Your task to perform on an android device: uninstall "Yahoo Mail" Image 0: 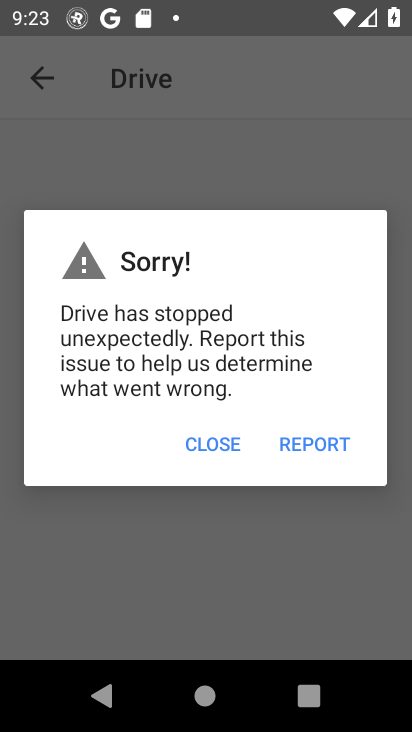
Step 0: click (220, 440)
Your task to perform on an android device: uninstall "Yahoo Mail" Image 1: 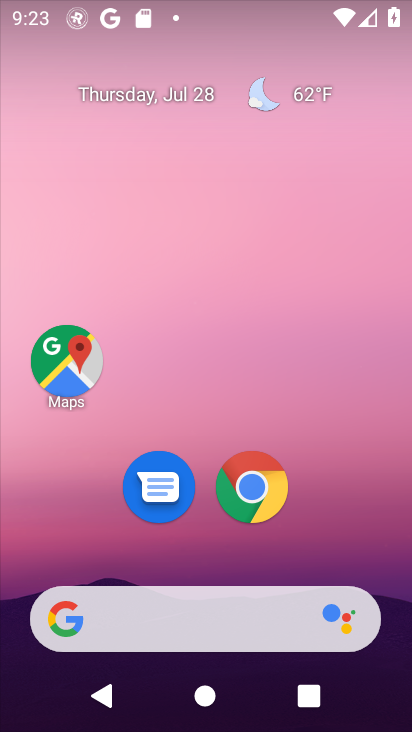
Step 1: drag from (232, 594) to (212, 203)
Your task to perform on an android device: uninstall "Yahoo Mail" Image 2: 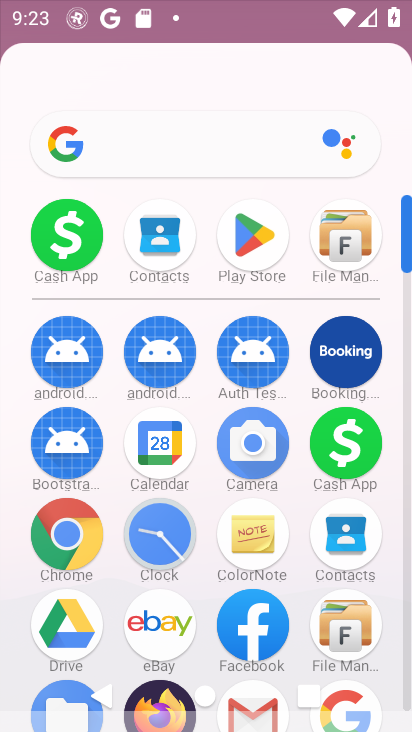
Step 2: drag from (211, 396) to (186, 139)
Your task to perform on an android device: uninstall "Yahoo Mail" Image 3: 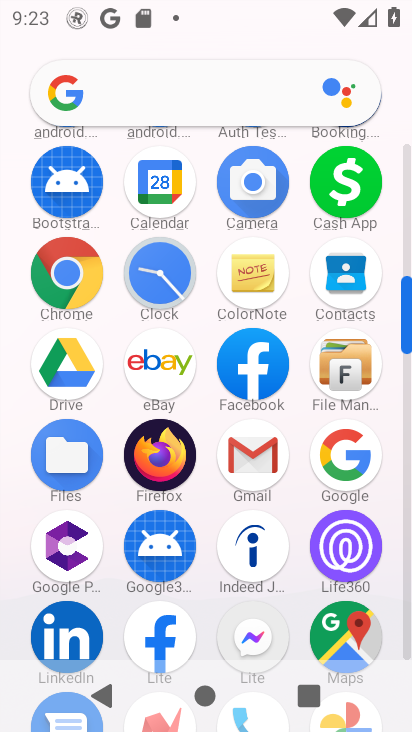
Step 3: drag from (184, 137) to (185, 500)
Your task to perform on an android device: uninstall "Yahoo Mail" Image 4: 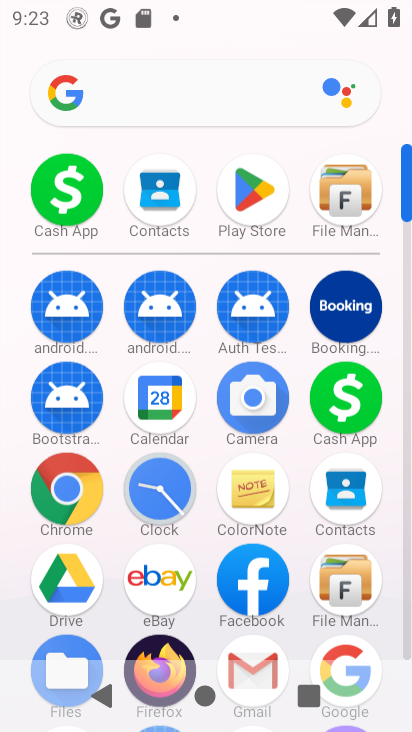
Step 4: drag from (211, 253) to (211, 492)
Your task to perform on an android device: uninstall "Yahoo Mail" Image 5: 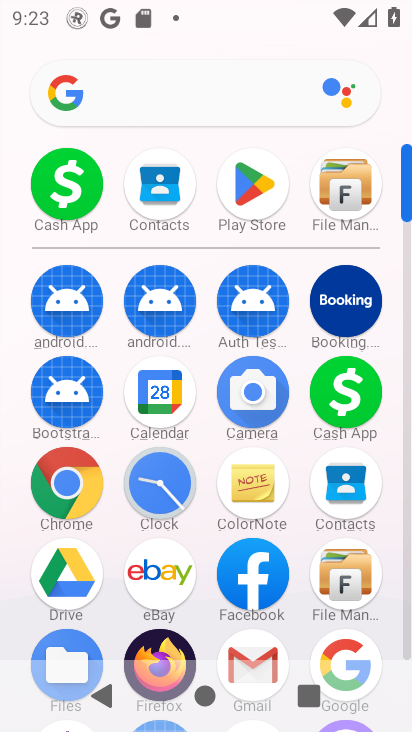
Step 5: click (255, 197)
Your task to perform on an android device: uninstall "Yahoo Mail" Image 6: 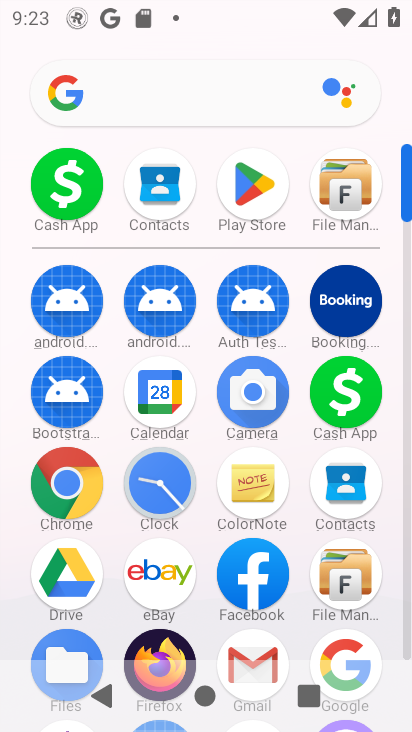
Step 6: click (256, 197)
Your task to perform on an android device: uninstall "Yahoo Mail" Image 7: 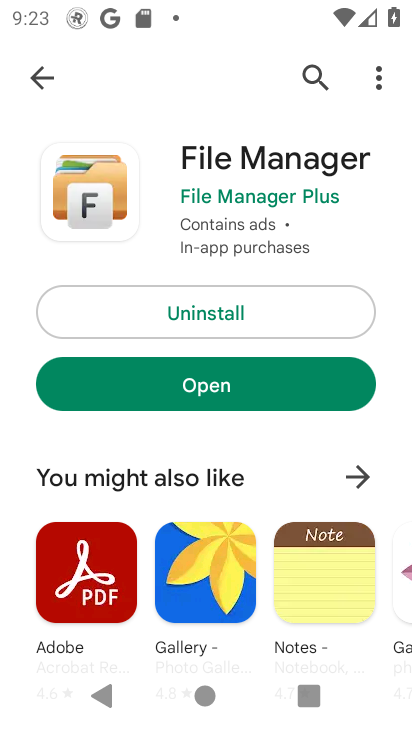
Step 7: click (32, 75)
Your task to perform on an android device: uninstall "Yahoo Mail" Image 8: 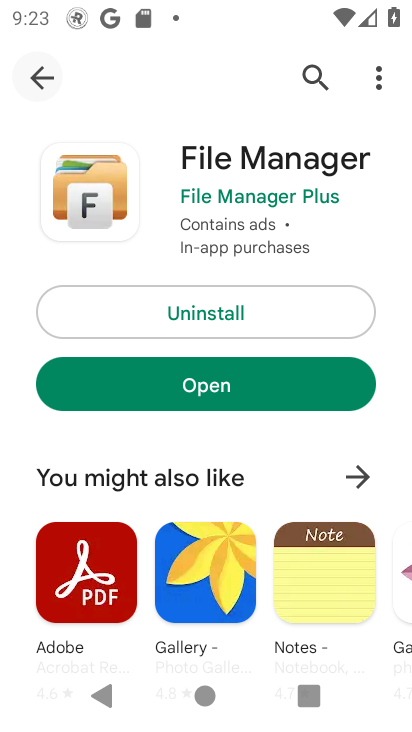
Step 8: click (32, 75)
Your task to perform on an android device: uninstall "Yahoo Mail" Image 9: 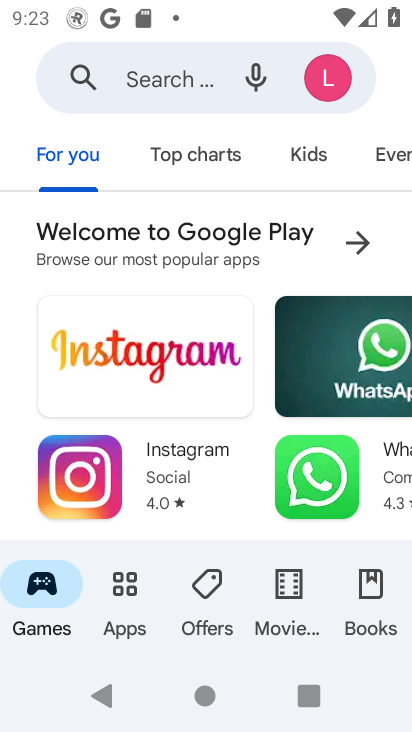
Step 9: click (147, 76)
Your task to perform on an android device: uninstall "Yahoo Mail" Image 10: 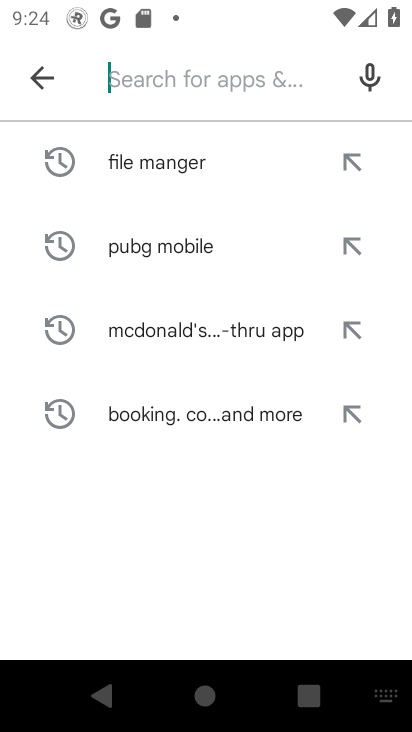
Step 10: type "Yahoo Mail"
Your task to perform on an android device: uninstall "Yahoo Mail" Image 11: 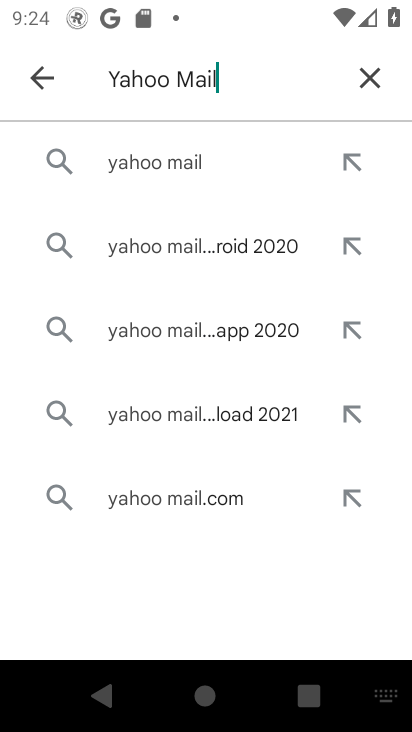
Step 11: click (161, 167)
Your task to perform on an android device: uninstall "Yahoo Mail" Image 12: 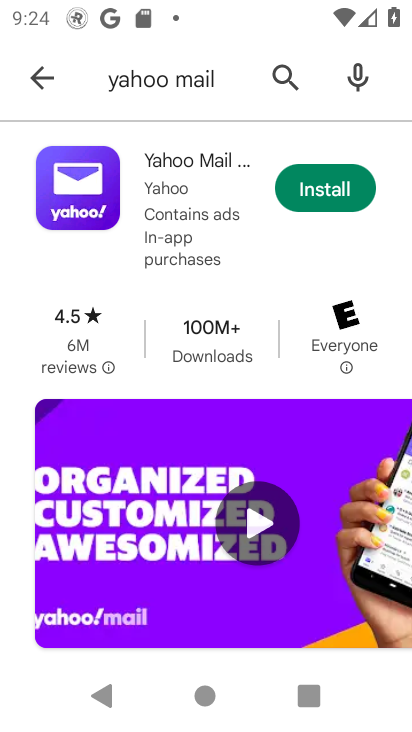
Step 12: click (320, 190)
Your task to perform on an android device: uninstall "Yahoo Mail" Image 13: 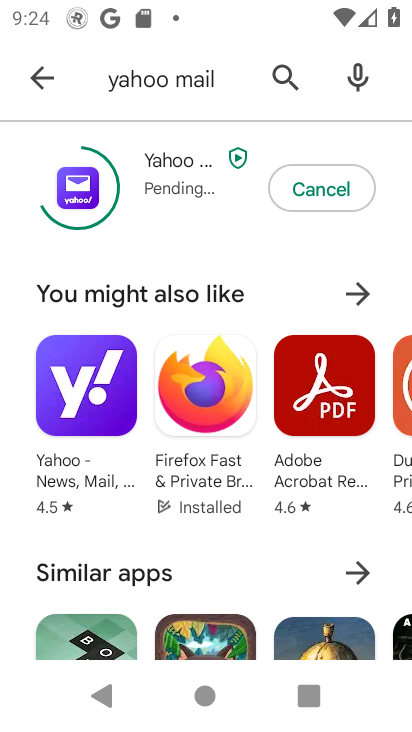
Step 13: click (288, 185)
Your task to perform on an android device: uninstall "Yahoo Mail" Image 14: 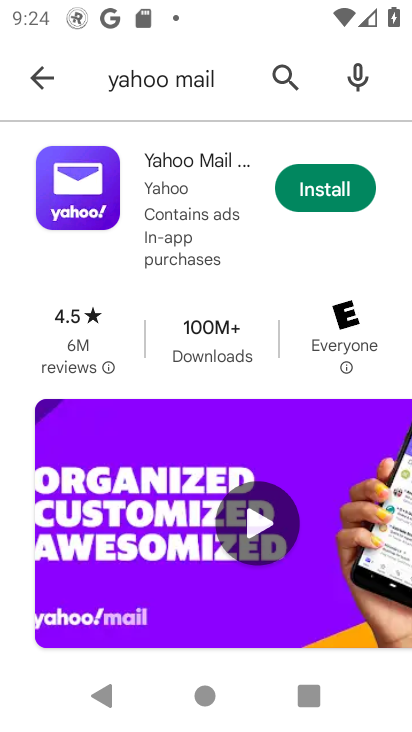
Step 14: task complete